Your task to perform on an android device: refresh tabs in the chrome app Image 0: 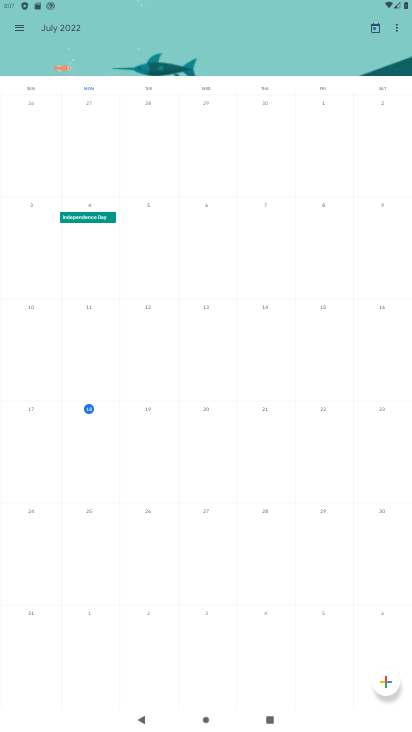
Step 0: press home button
Your task to perform on an android device: refresh tabs in the chrome app Image 1: 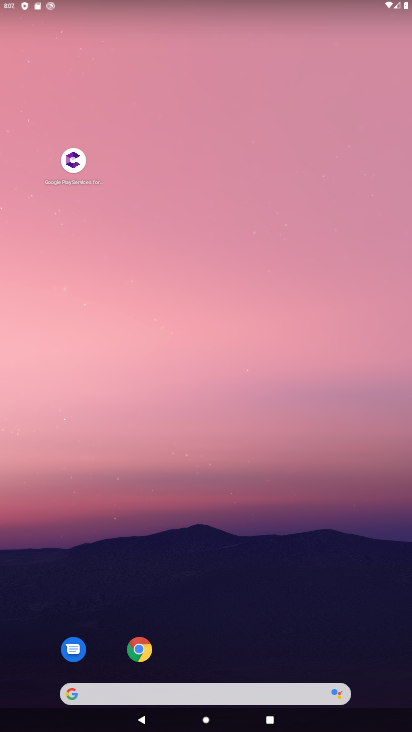
Step 1: click (141, 648)
Your task to perform on an android device: refresh tabs in the chrome app Image 2: 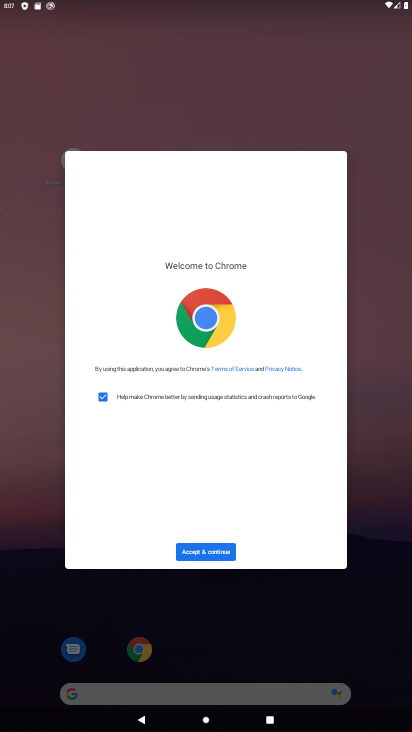
Step 2: click (199, 549)
Your task to perform on an android device: refresh tabs in the chrome app Image 3: 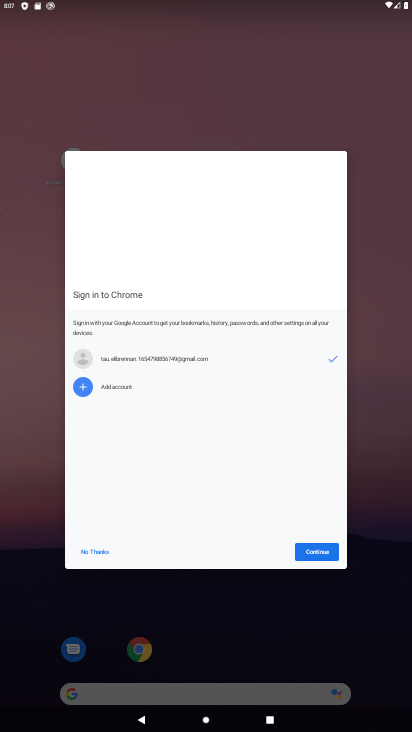
Step 3: click (313, 545)
Your task to perform on an android device: refresh tabs in the chrome app Image 4: 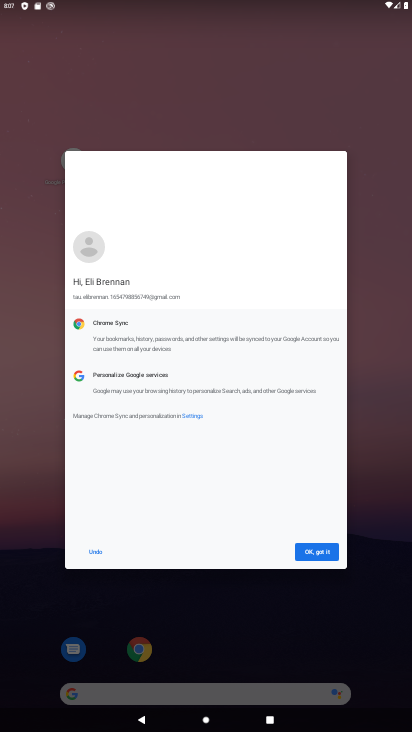
Step 4: click (307, 557)
Your task to perform on an android device: refresh tabs in the chrome app Image 5: 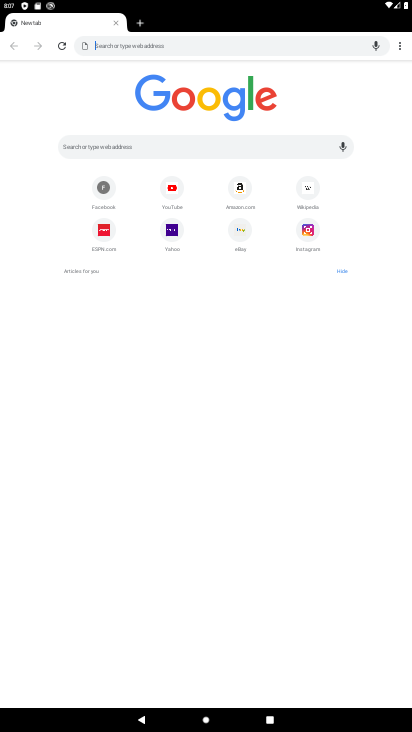
Step 5: click (397, 47)
Your task to perform on an android device: refresh tabs in the chrome app Image 6: 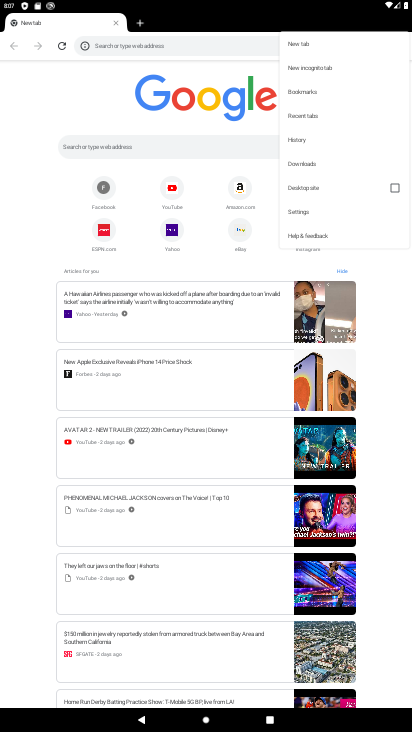
Step 6: click (318, 46)
Your task to perform on an android device: refresh tabs in the chrome app Image 7: 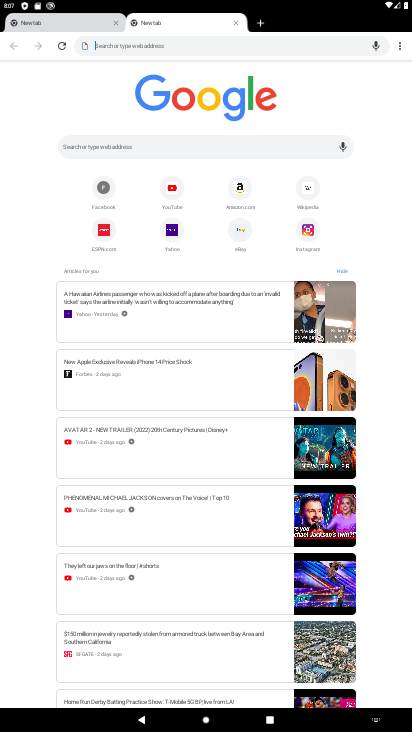
Step 7: task complete